Your task to perform on an android device: Clear the cart on amazon.com. Search for macbook pro 13 inch on amazon.com, select the first entry, and add it to the cart. Image 0: 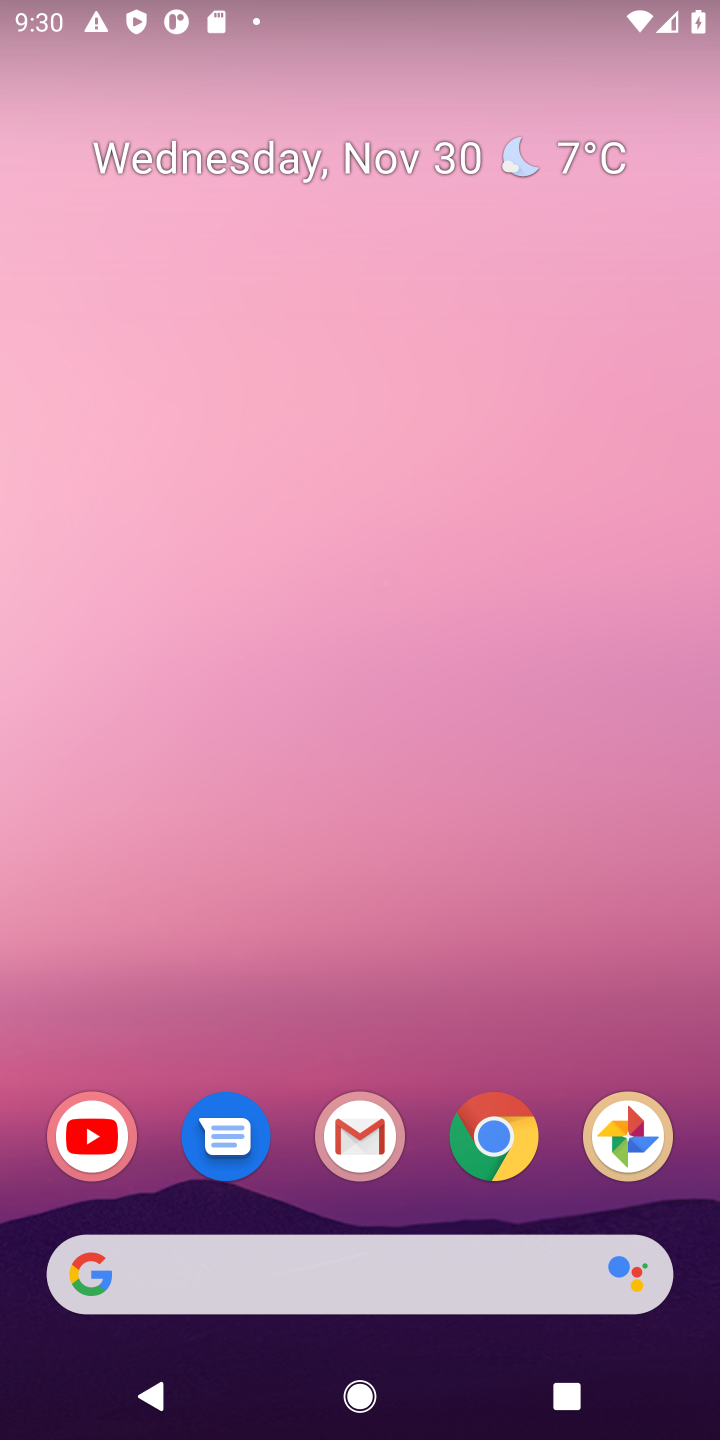
Step 0: click (499, 1138)
Your task to perform on an android device: Clear the cart on amazon.com. Search for macbook pro 13 inch on amazon.com, select the first entry, and add it to the cart. Image 1: 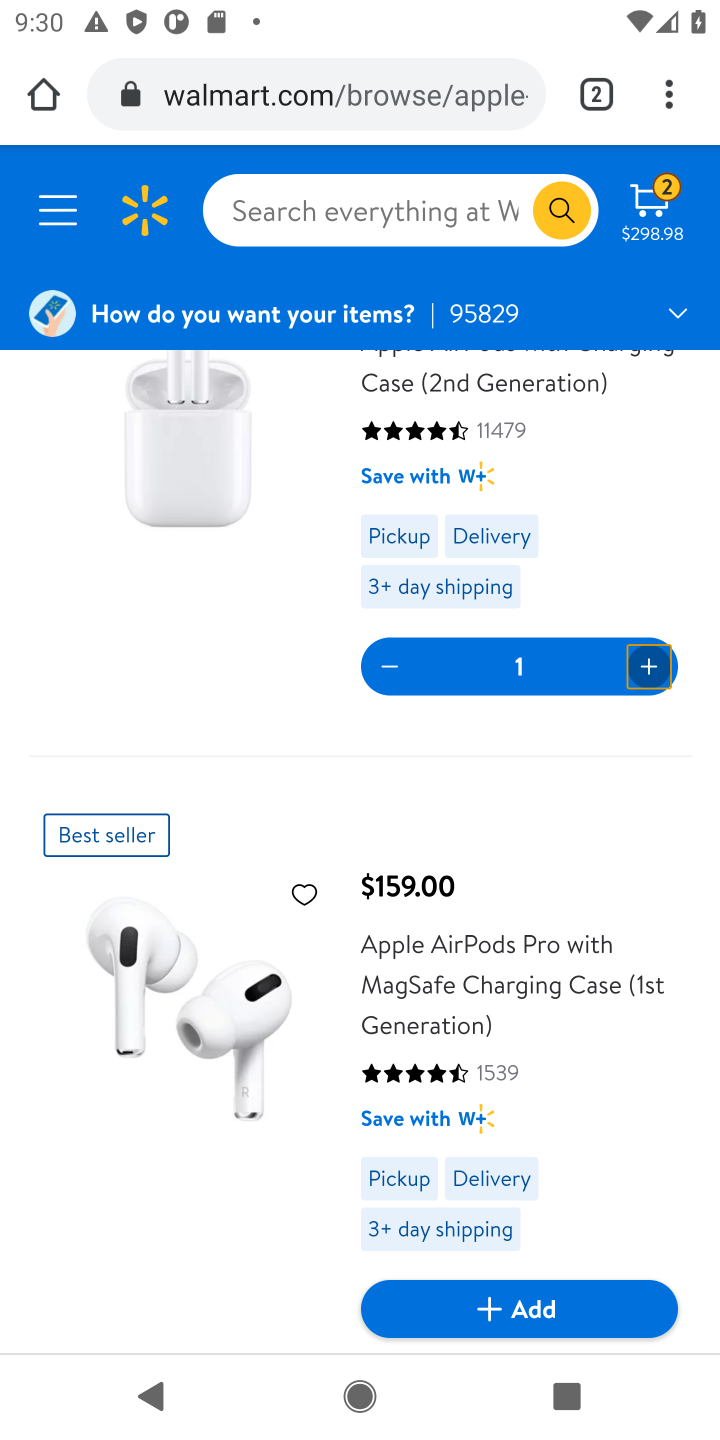
Step 1: click (293, 95)
Your task to perform on an android device: Clear the cart on amazon.com. Search for macbook pro 13 inch on amazon.com, select the first entry, and add it to the cart. Image 2: 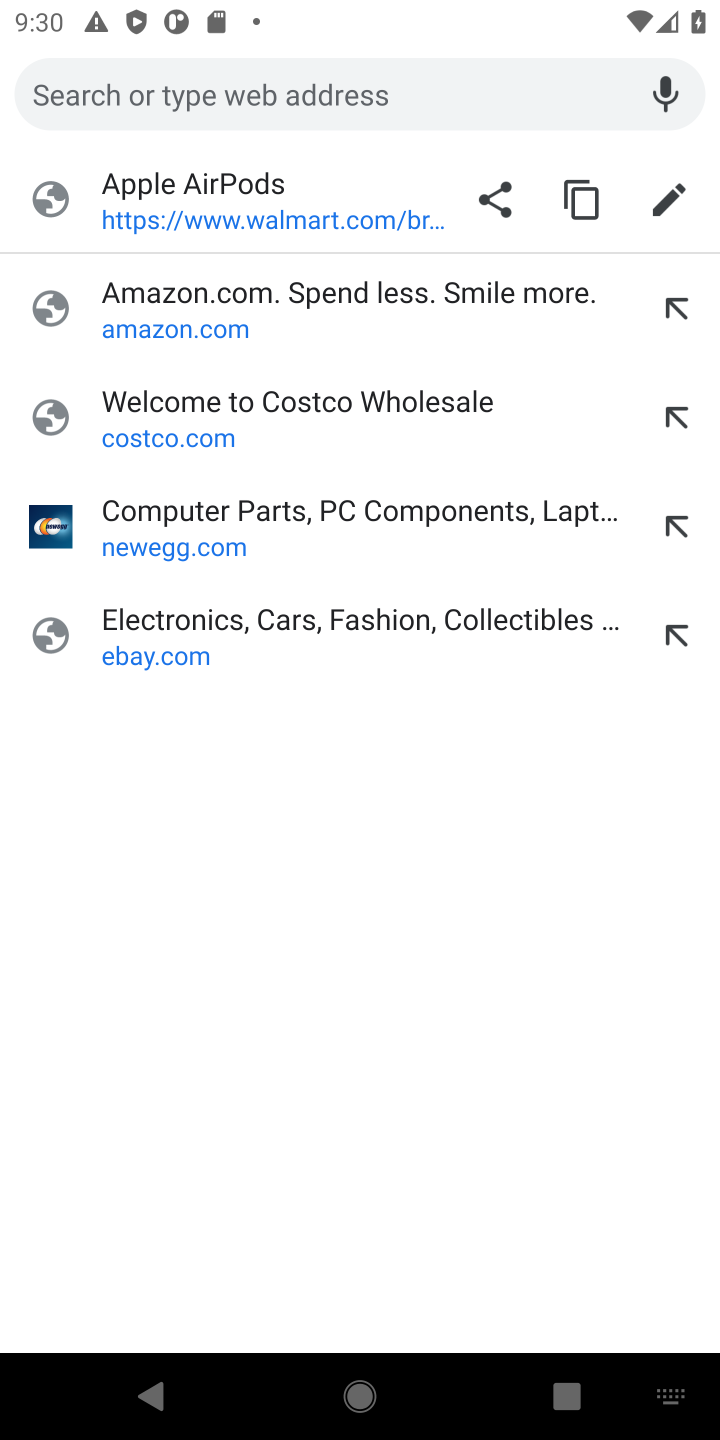
Step 2: click (153, 317)
Your task to perform on an android device: Clear the cart on amazon.com. Search for macbook pro 13 inch on amazon.com, select the first entry, and add it to the cart. Image 3: 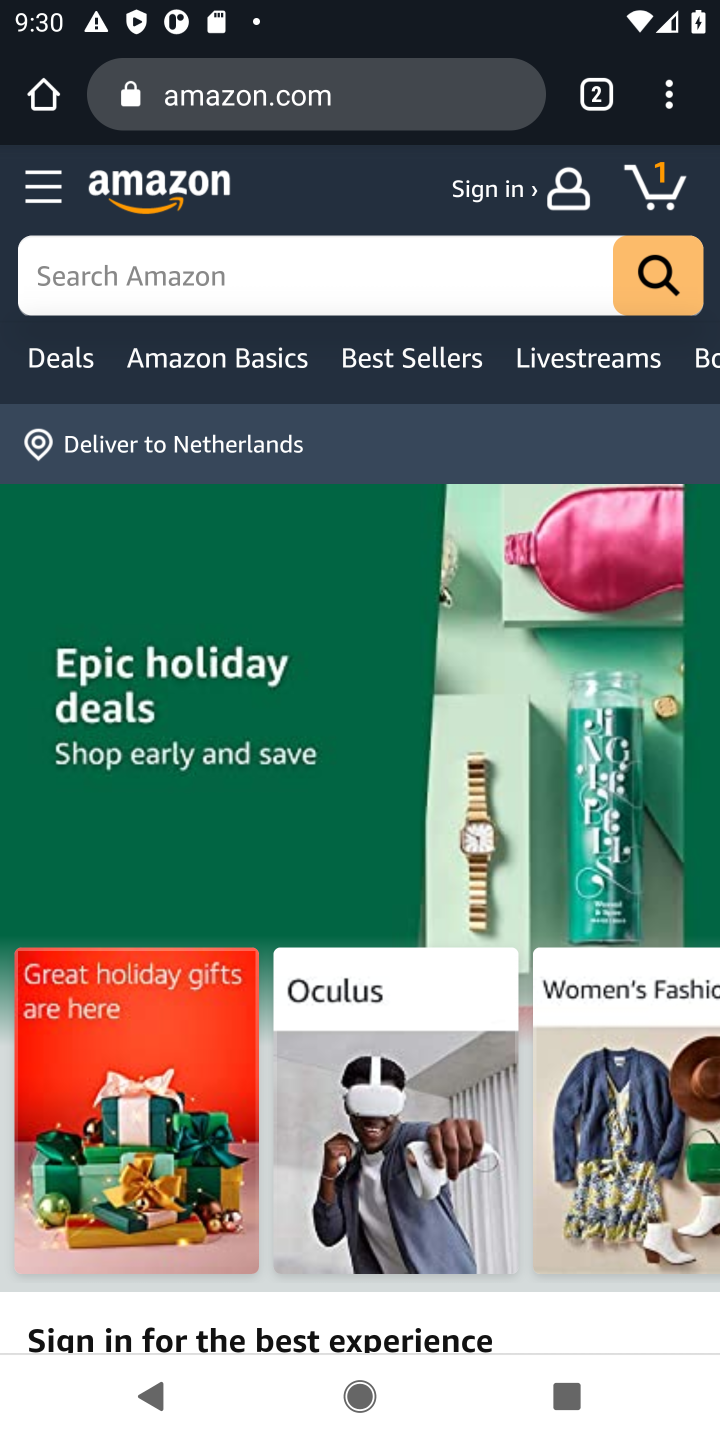
Step 3: click (656, 206)
Your task to perform on an android device: Clear the cart on amazon.com. Search for macbook pro 13 inch on amazon.com, select the first entry, and add it to the cart. Image 4: 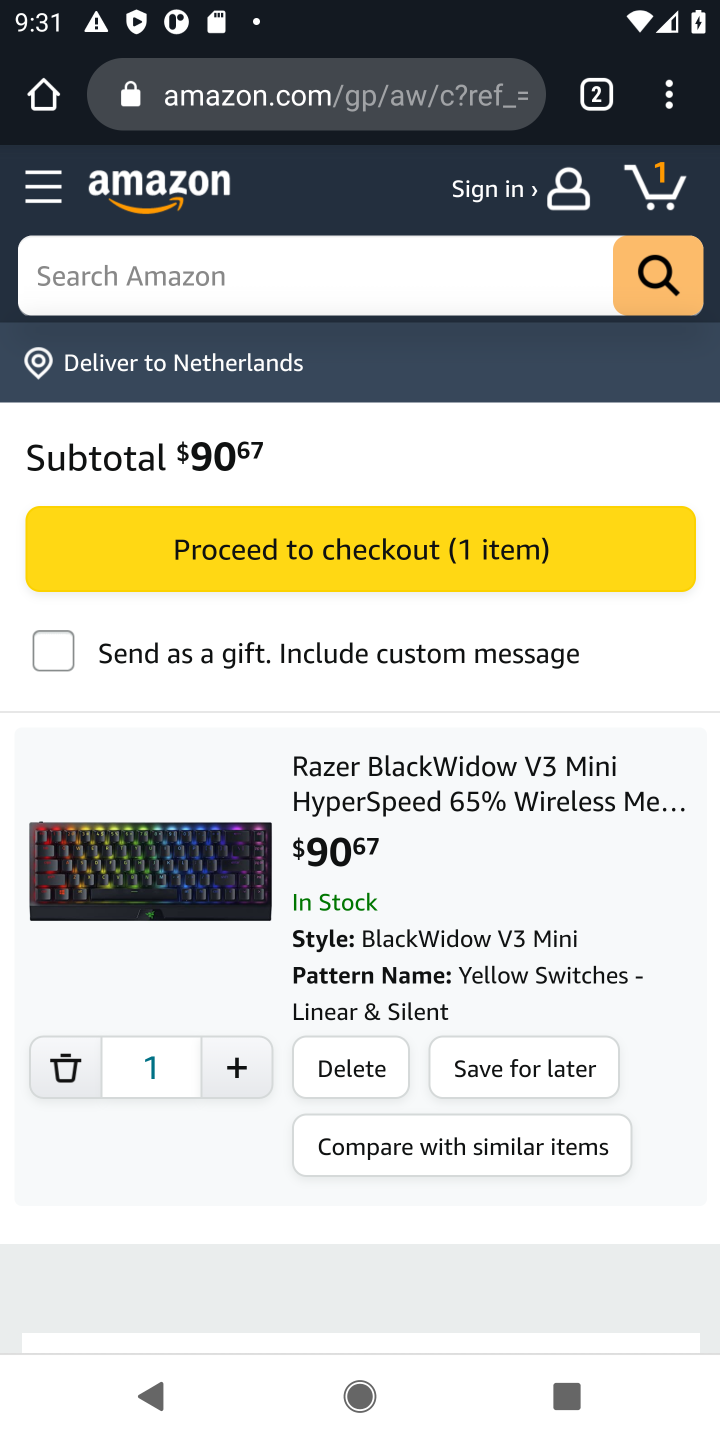
Step 4: click (346, 1068)
Your task to perform on an android device: Clear the cart on amazon.com. Search for macbook pro 13 inch on amazon.com, select the first entry, and add it to the cart. Image 5: 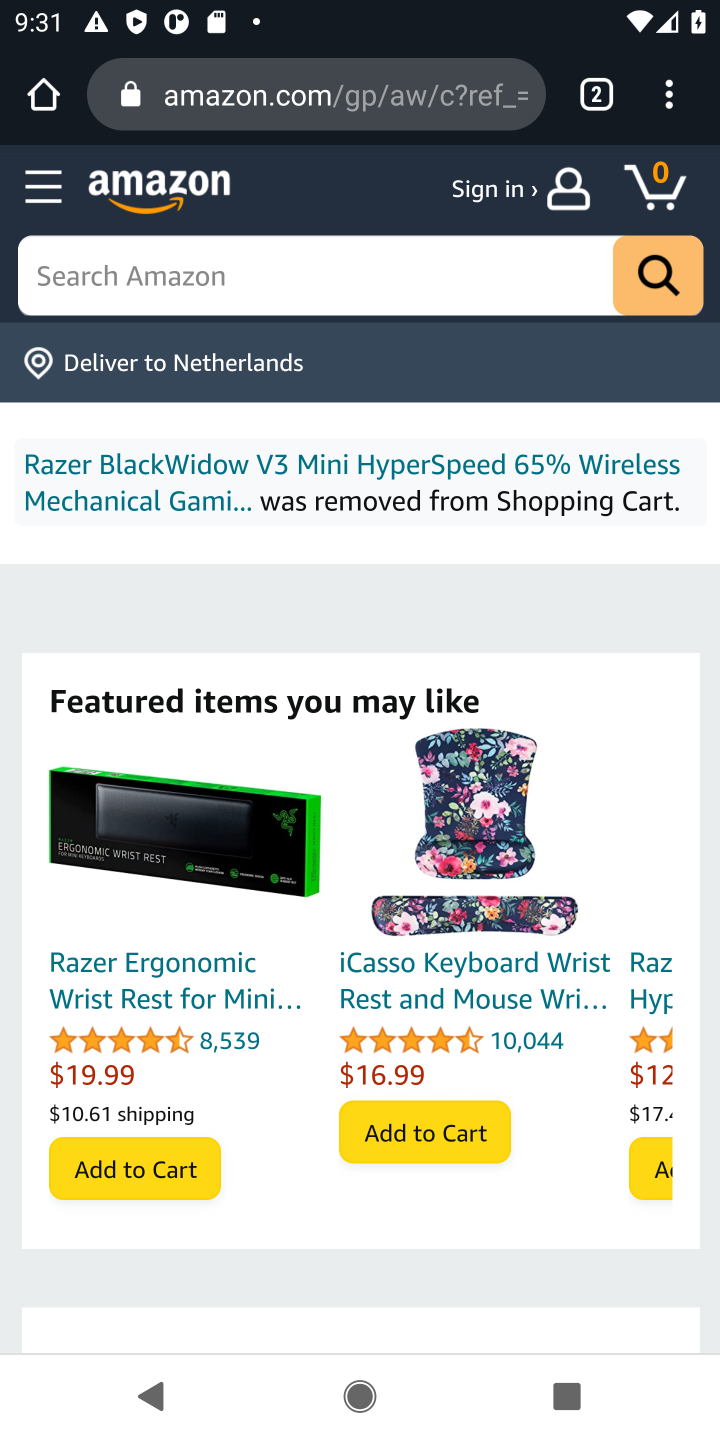
Step 5: click (225, 289)
Your task to perform on an android device: Clear the cart on amazon.com. Search for macbook pro 13 inch on amazon.com, select the first entry, and add it to the cart. Image 6: 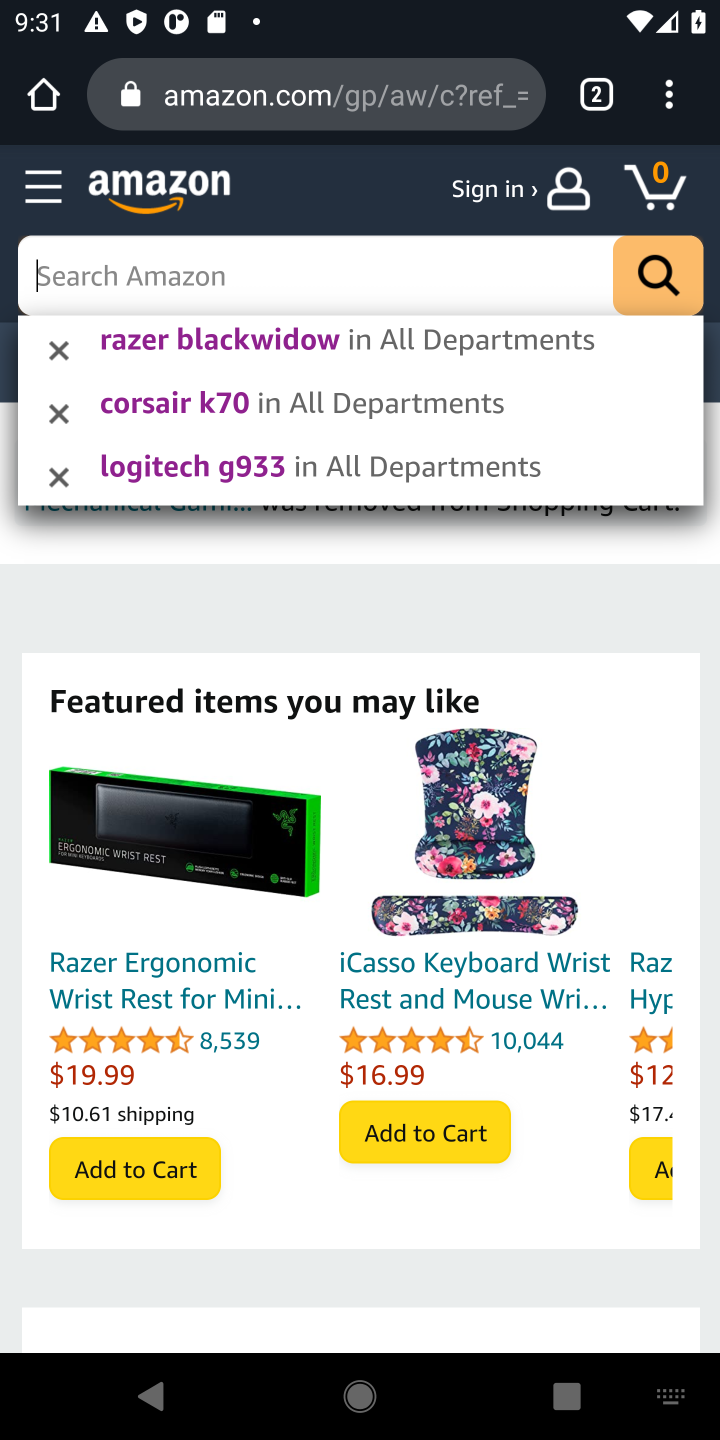
Step 6: type "macbook pro 13 inch"
Your task to perform on an android device: Clear the cart on amazon.com. Search for macbook pro 13 inch on amazon.com, select the first entry, and add it to the cart. Image 7: 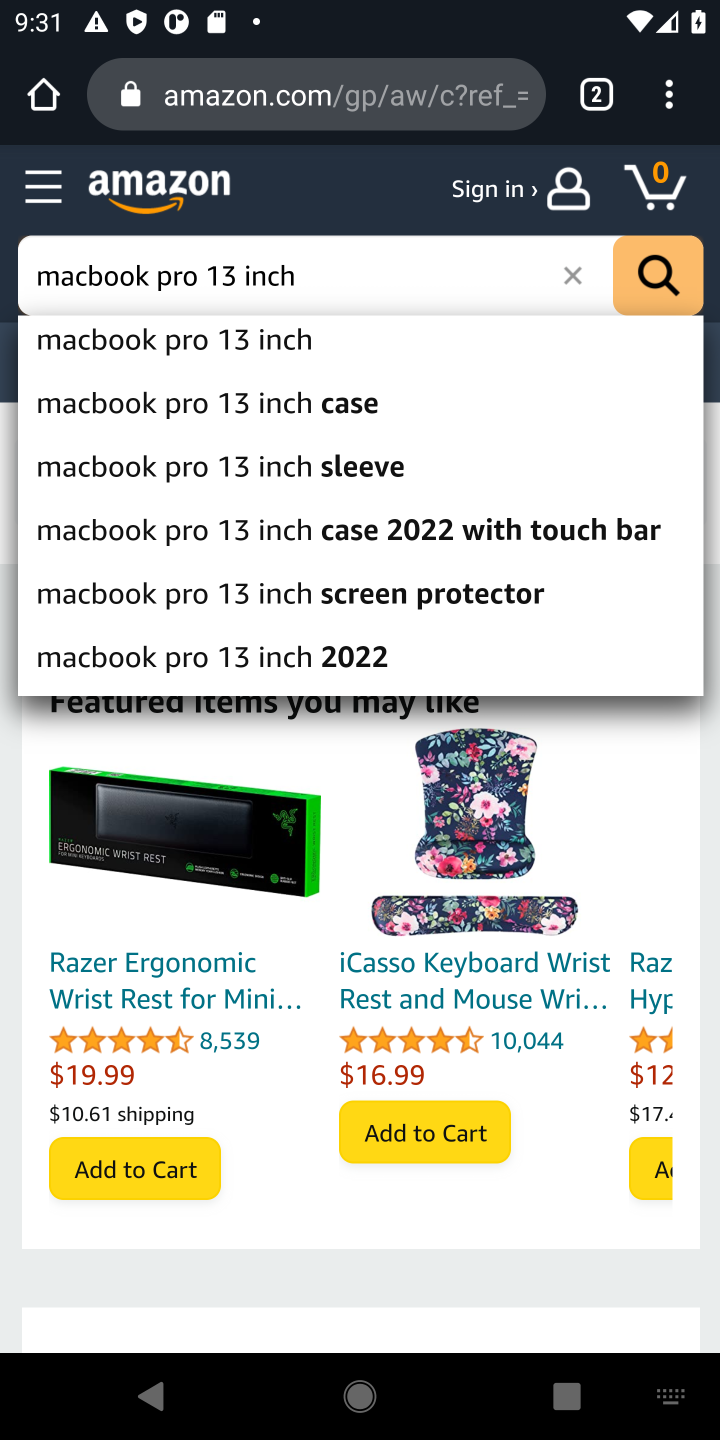
Step 7: click (255, 358)
Your task to perform on an android device: Clear the cart on amazon.com. Search for macbook pro 13 inch on amazon.com, select the first entry, and add it to the cart. Image 8: 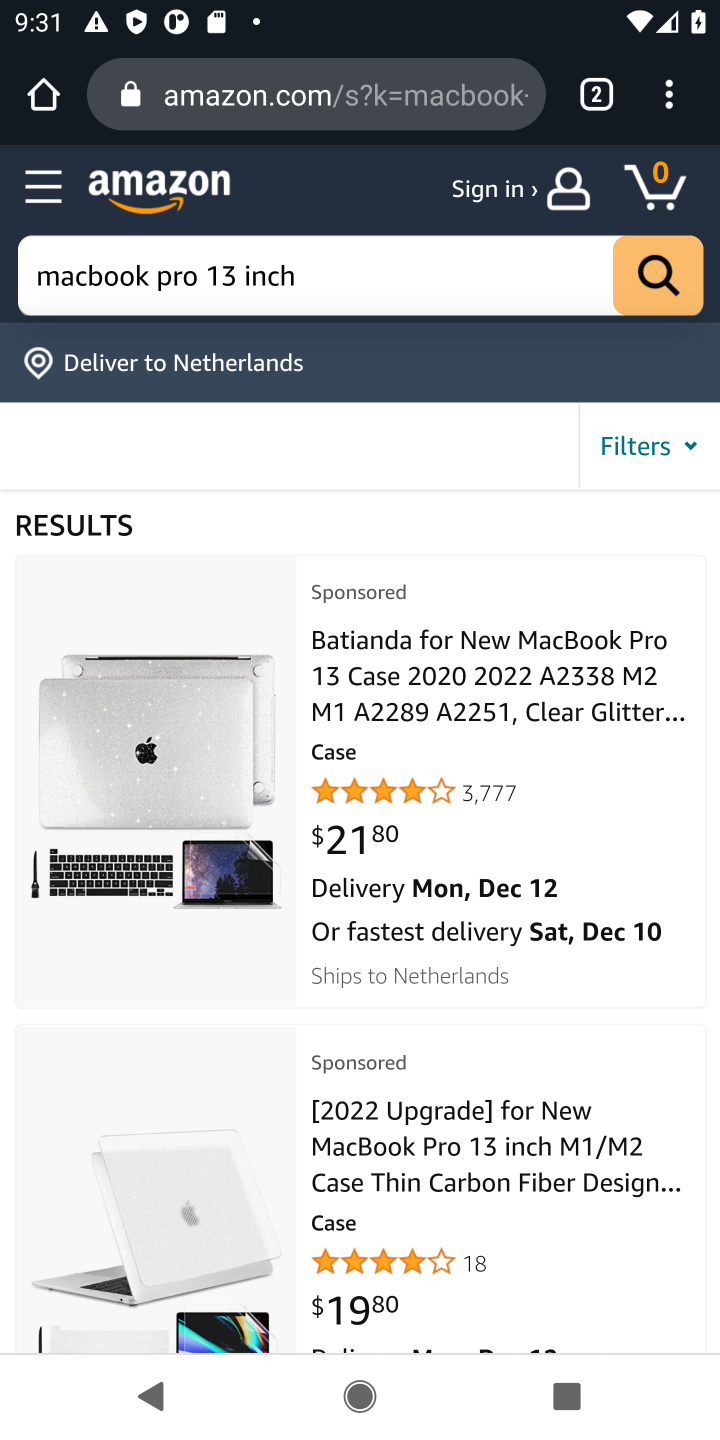
Step 8: click (420, 712)
Your task to perform on an android device: Clear the cart on amazon.com. Search for macbook pro 13 inch on amazon.com, select the first entry, and add it to the cart. Image 9: 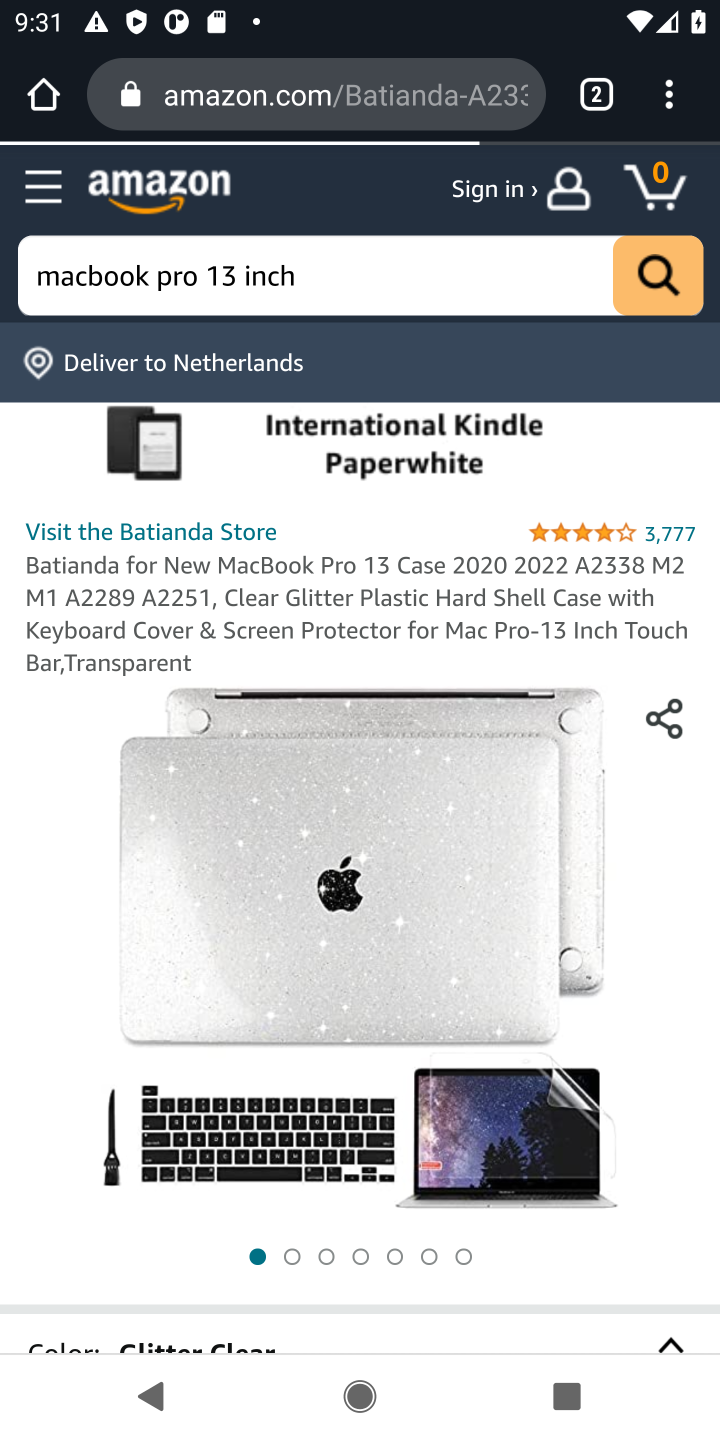
Step 9: drag from (356, 1115) to (354, 596)
Your task to perform on an android device: Clear the cart on amazon.com. Search for macbook pro 13 inch on amazon.com, select the first entry, and add it to the cart. Image 10: 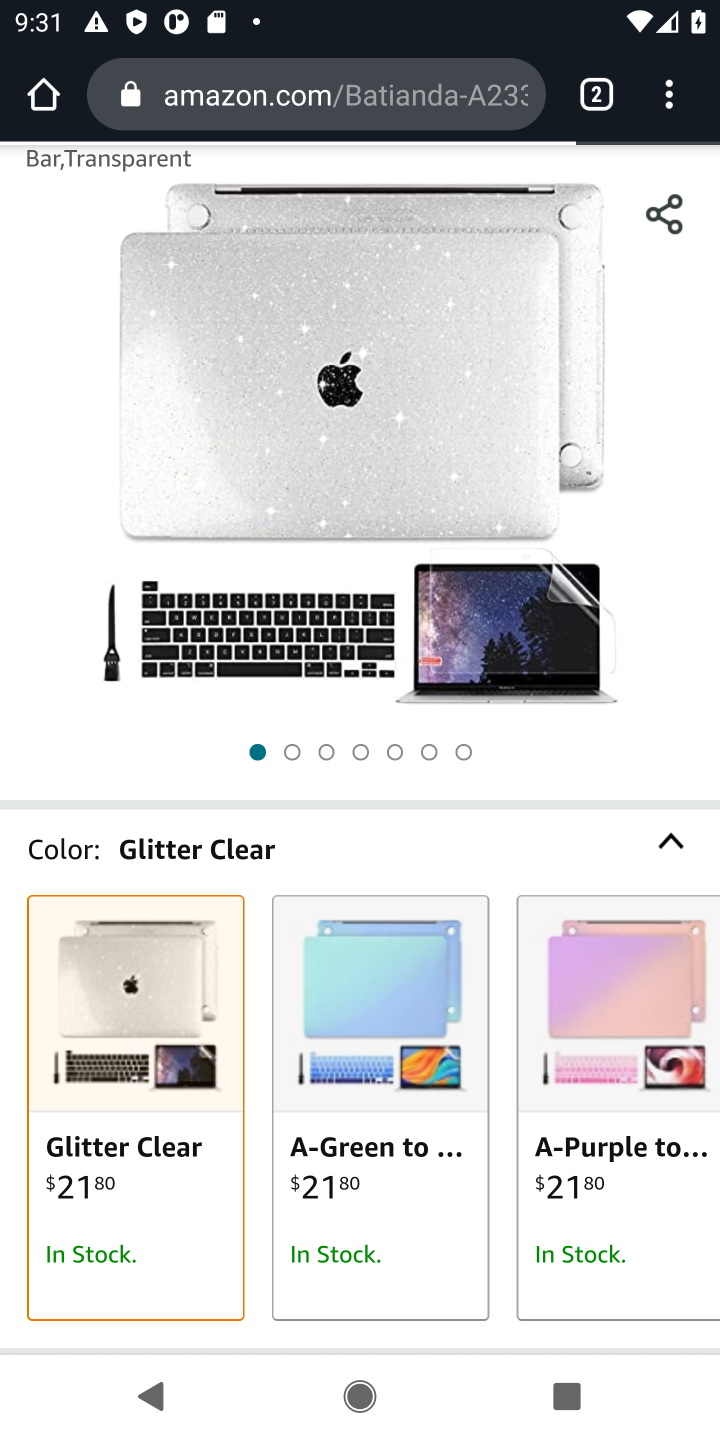
Step 10: drag from (412, 921) to (369, 560)
Your task to perform on an android device: Clear the cart on amazon.com. Search for macbook pro 13 inch on amazon.com, select the first entry, and add it to the cart. Image 11: 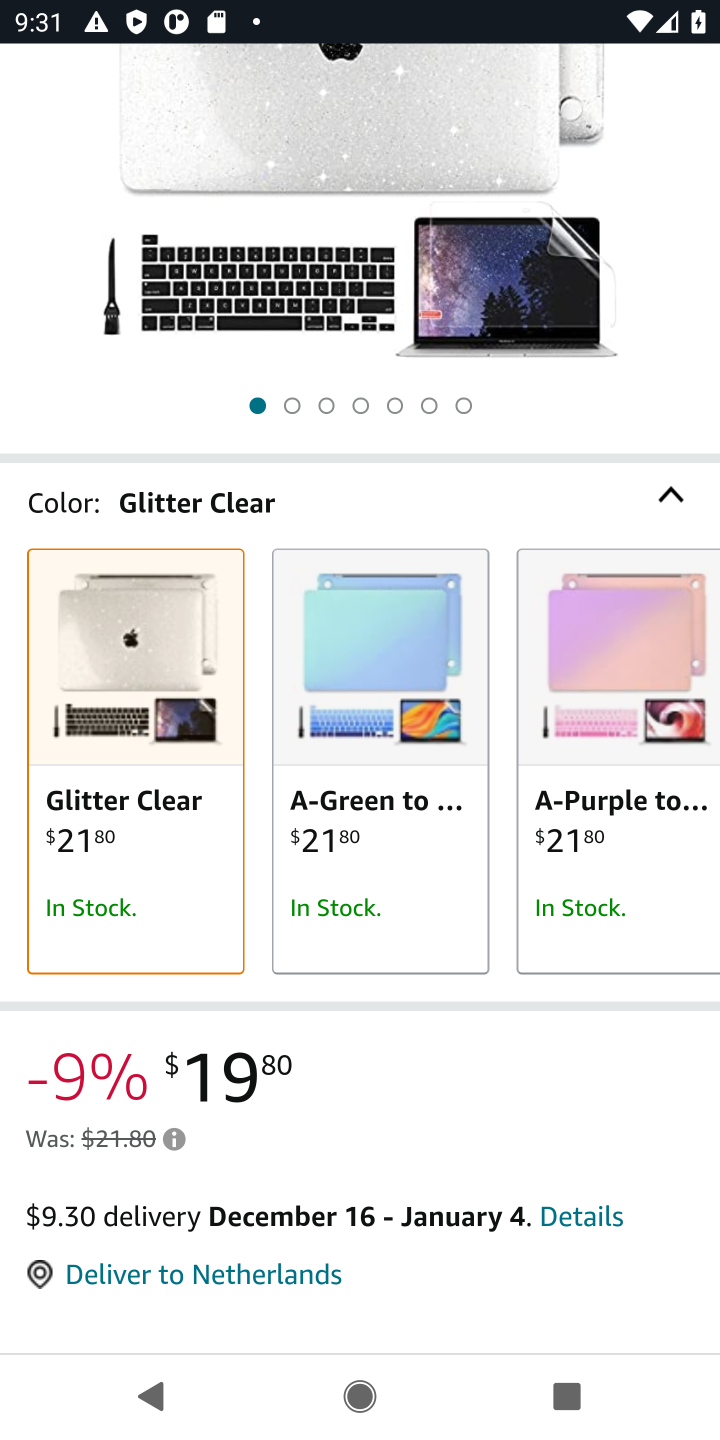
Step 11: drag from (401, 992) to (385, 577)
Your task to perform on an android device: Clear the cart on amazon.com. Search for macbook pro 13 inch on amazon.com, select the first entry, and add it to the cart. Image 12: 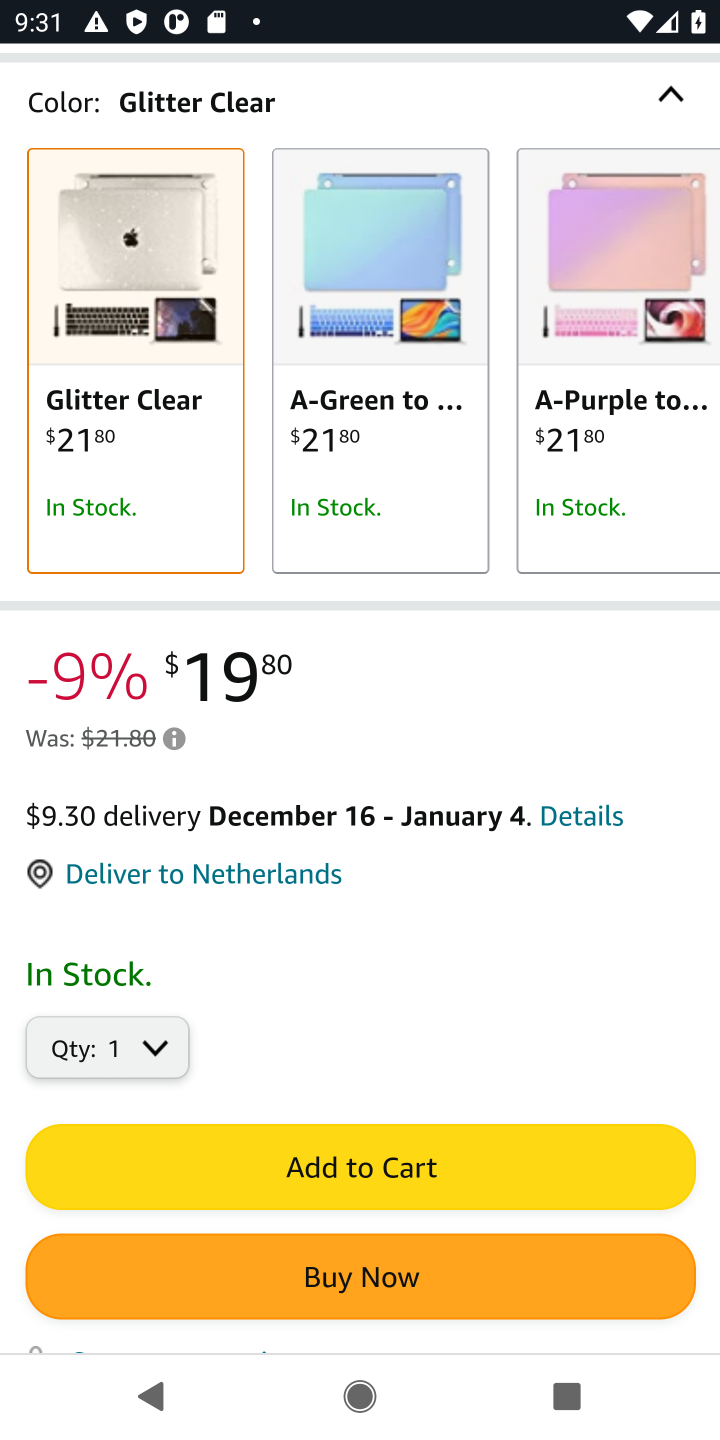
Step 12: click (333, 1173)
Your task to perform on an android device: Clear the cart on amazon.com. Search for macbook pro 13 inch on amazon.com, select the first entry, and add it to the cart. Image 13: 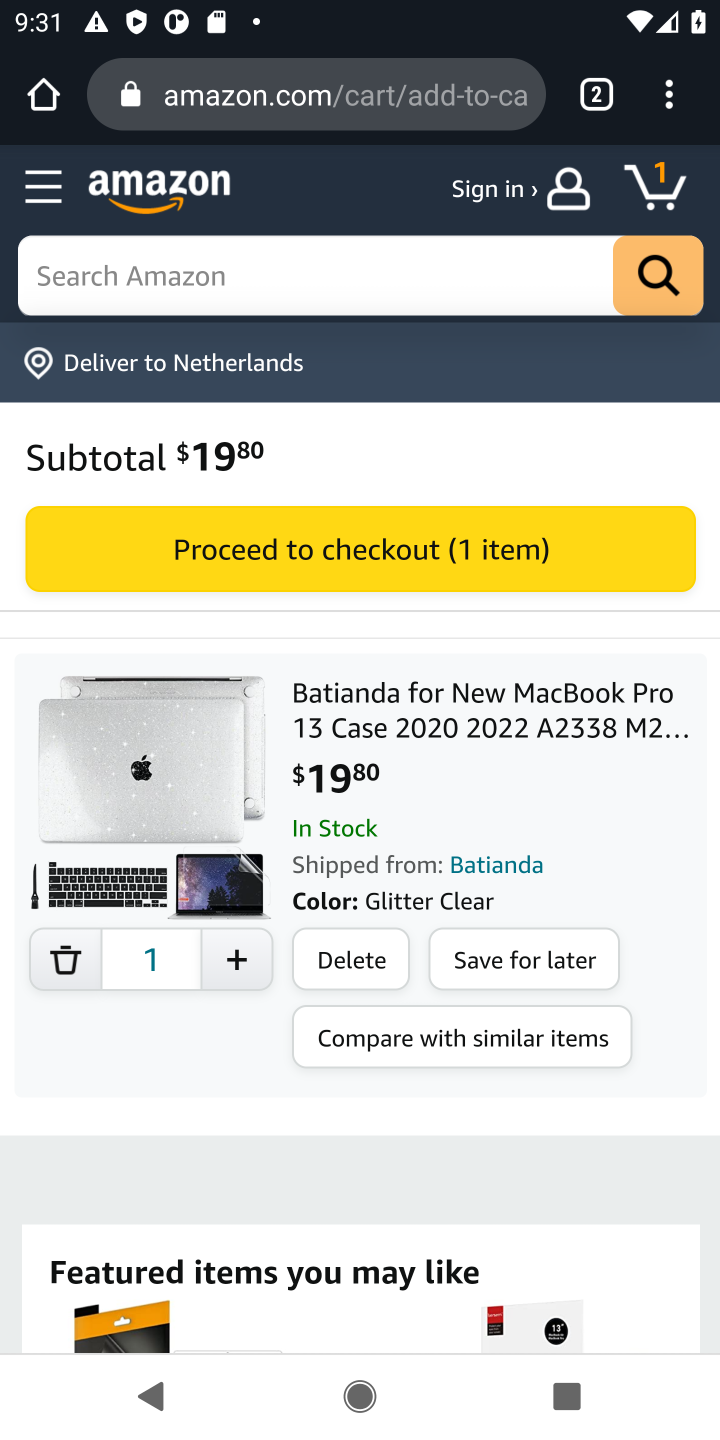
Step 13: task complete